Your task to perform on an android device: allow notifications from all sites in the chrome app Image 0: 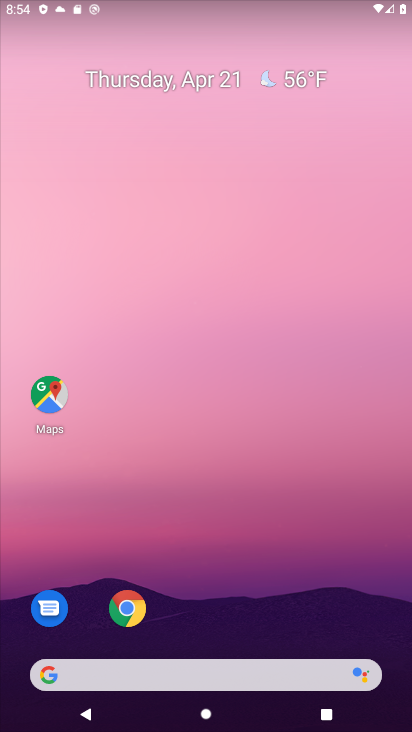
Step 0: click (133, 609)
Your task to perform on an android device: allow notifications from all sites in the chrome app Image 1: 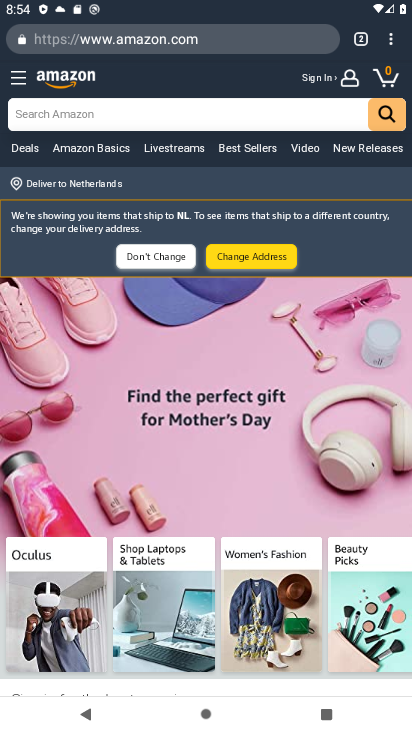
Step 1: click (390, 40)
Your task to perform on an android device: allow notifications from all sites in the chrome app Image 2: 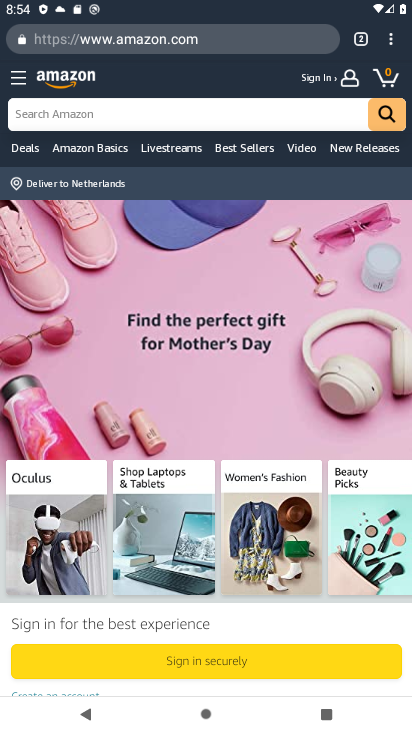
Step 2: click (390, 40)
Your task to perform on an android device: allow notifications from all sites in the chrome app Image 3: 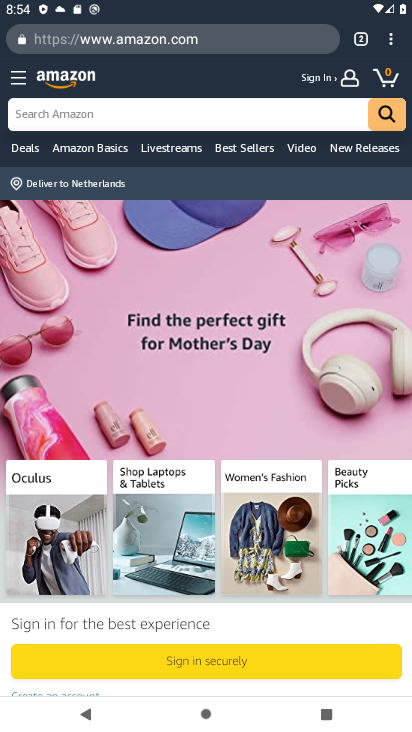
Step 3: click (393, 42)
Your task to perform on an android device: allow notifications from all sites in the chrome app Image 4: 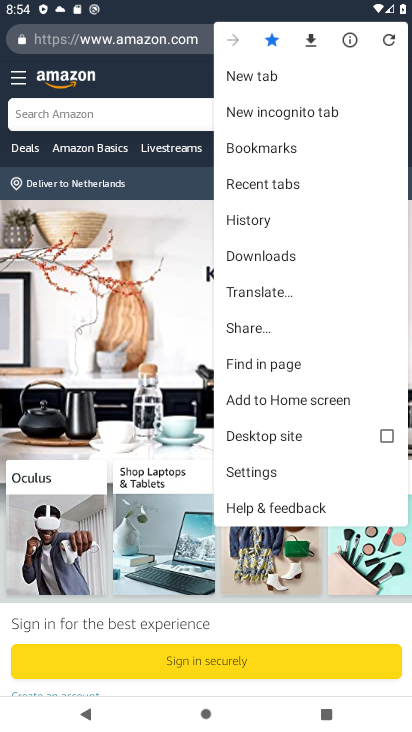
Step 4: click (283, 467)
Your task to perform on an android device: allow notifications from all sites in the chrome app Image 5: 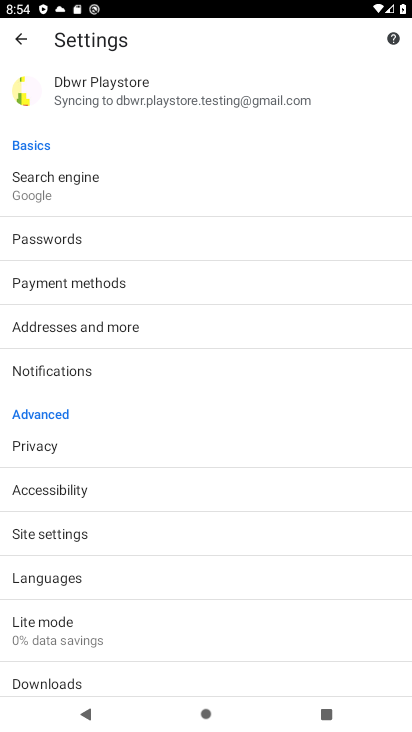
Step 5: click (233, 366)
Your task to perform on an android device: allow notifications from all sites in the chrome app Image 6: 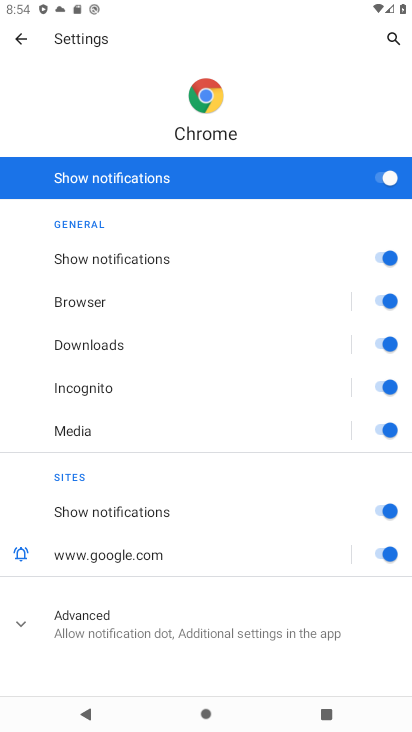
Step 6: task complete